Your task to perform on an android device: toggle airplane mode Image 0: 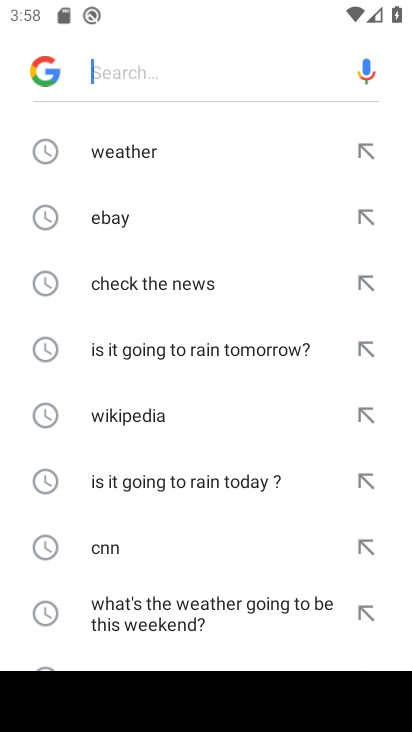
Step 0: press home button
Your task to perform on an android device: toggle airplane mode Image 1: 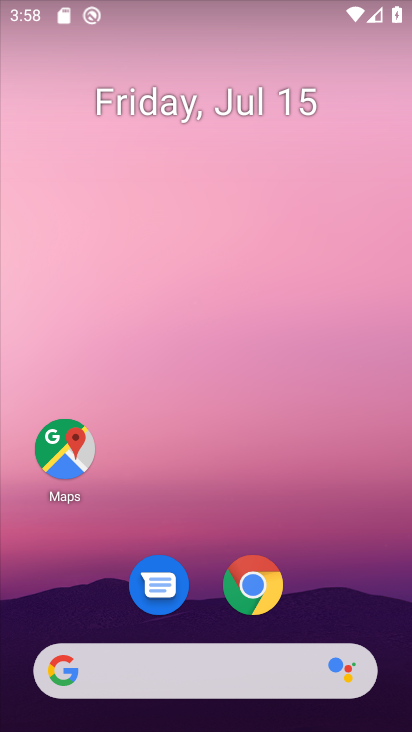
Step 1: drag from (331, 551) to (314, 52)
Your task to perform on an android device: toggle airplane mode Image 2: 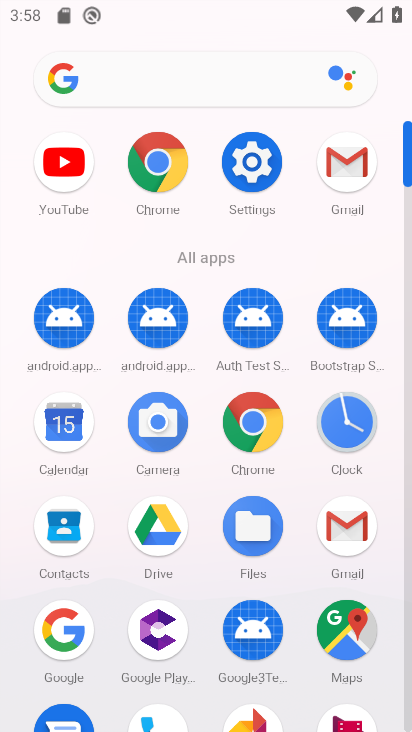
Step 2: click (263, 161)
Your task to perform on an android device: toggle airplane mode Image 3: 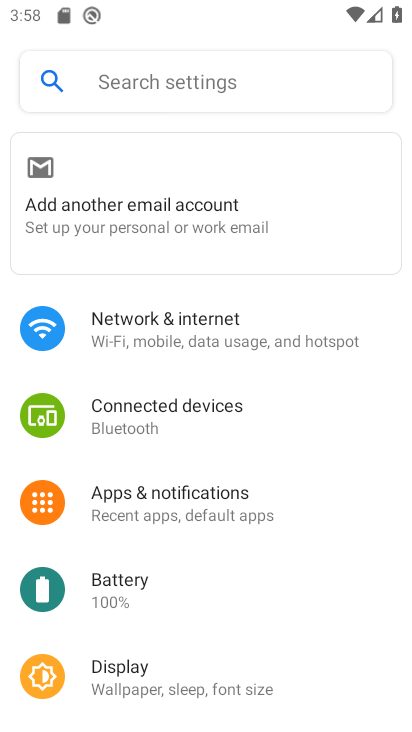
Step 3: click (228, 330)
Your task to perform on an android device: toggle airplane mode Image 4: 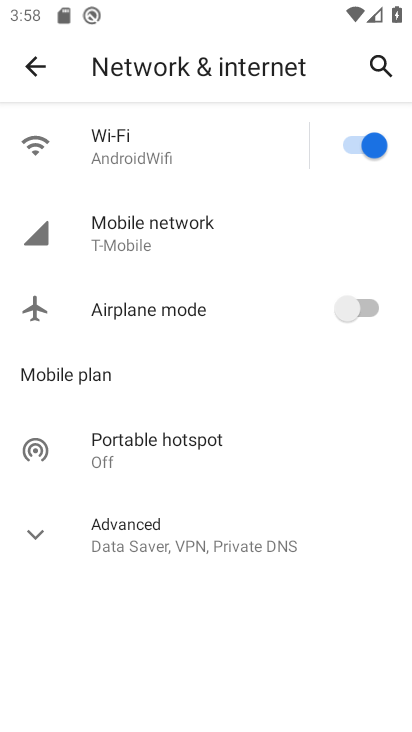
Step 4: click (357, 301)
Your task to perform on an android device: toggle airplane mode Image 5: 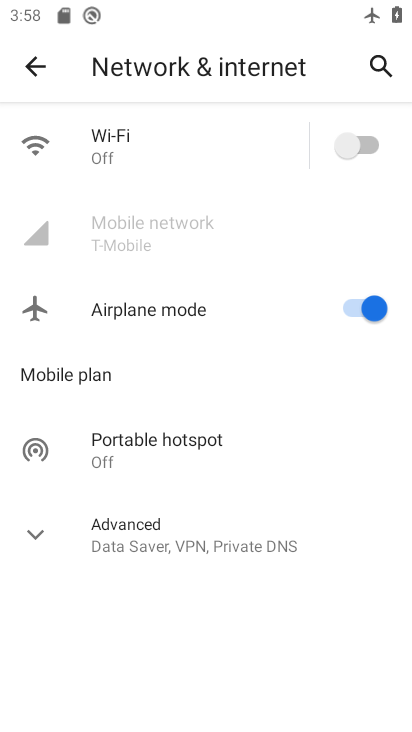
Step 5: task complete